Your task to perform on an android device: set the timer Image 0: 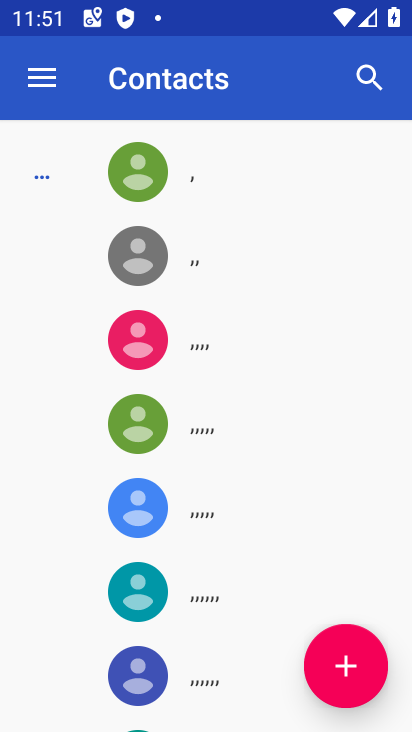
Step 0: press home button
Your task to perform on an android device: set the timer Image 1: 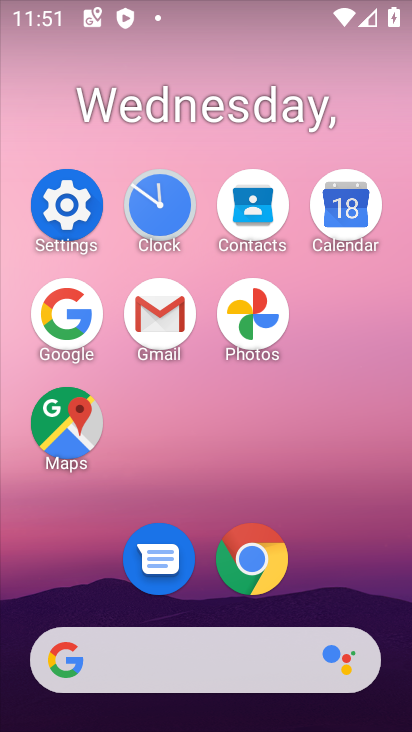
Step 1: click (160, 232)
Your task to perform on an android device: set the timer Image 2: 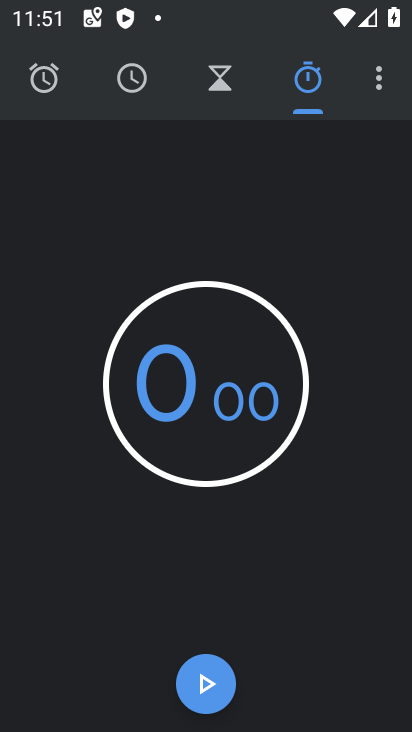
Step 2: click (229, 93)
Your task to perform on an android device: set the timer Image 3: 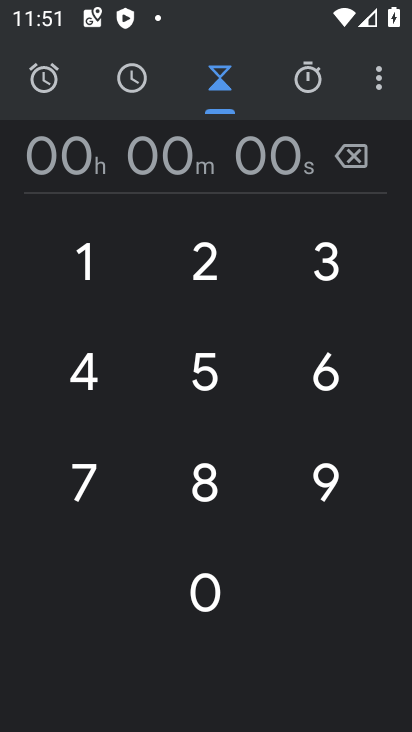
Step 3: click (225, 234)
Your task to perform on an android device: set the timer Image 4: 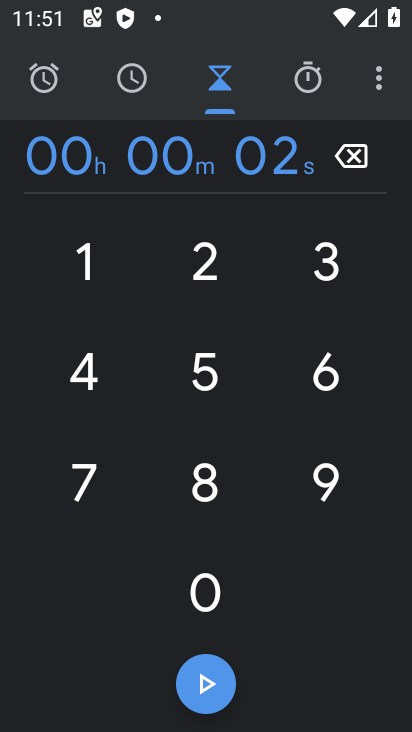
Step 4: click (225, 234)
Your task to perform on an android device: set the timer Image 5: 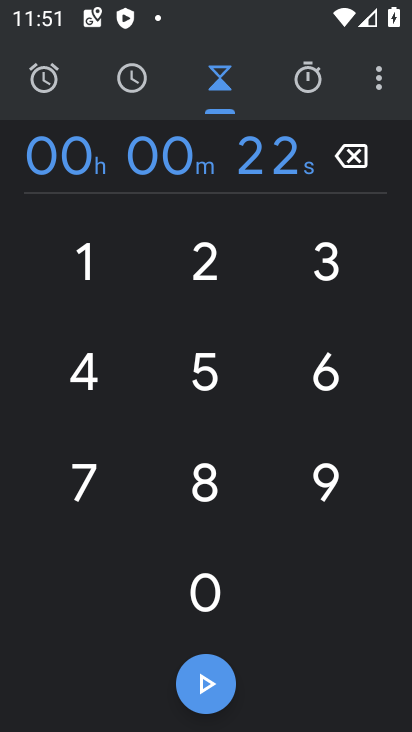
Step 5: click (206, 706)
Your task to perform on an android device: set the timer Image 6: 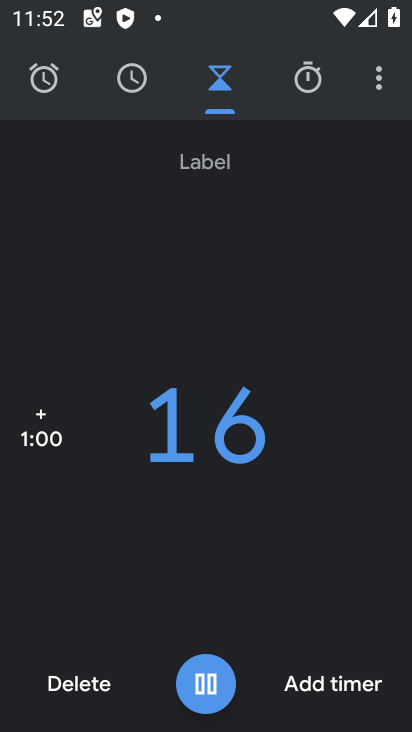
Step 6: task complete